Your task to perform on an android device: change the clock display to analog Image 0: 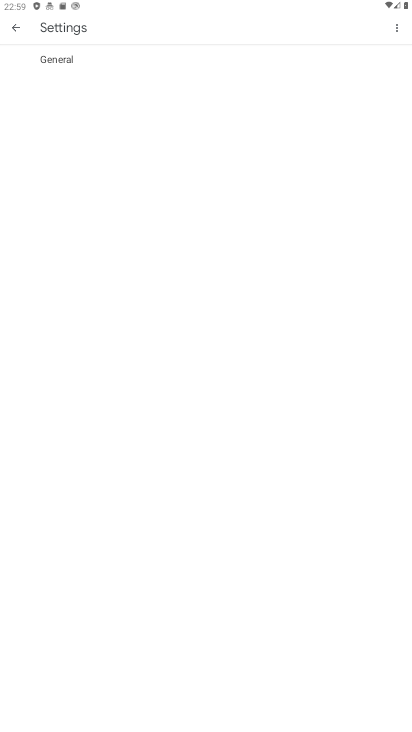
Step 0: click (13, 31)
Your task to perform on an android device: change the clock display to analog Image 1: 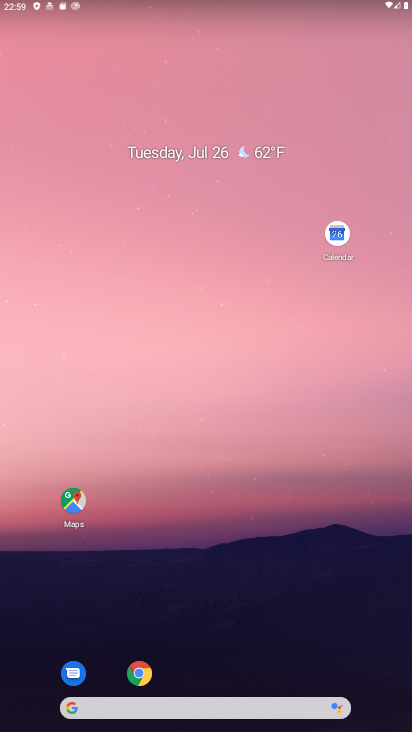
Step 1: drag from (244, 700) to (215, 296)
Your task to perform on an android device: change the clock display to analog Image 2: 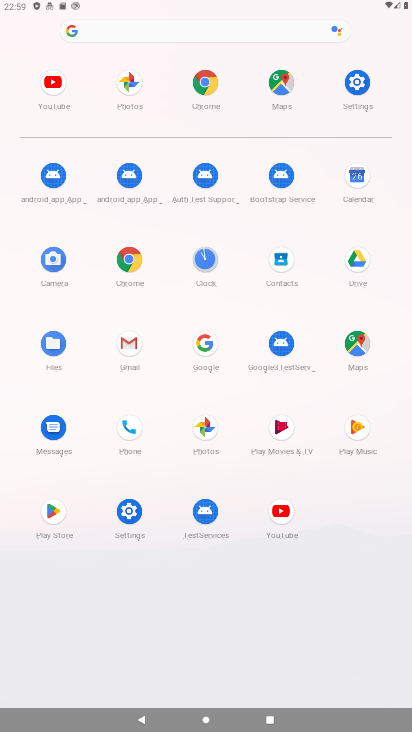
Step 2: drag from (212, 525) to (206, 235)
Your task to perform on an android device: change the clock display to analog Image 3: 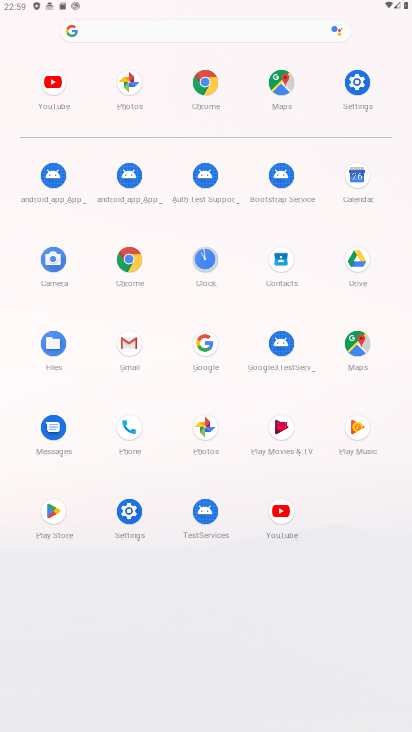
Step 3: click (207, 269)
Your task to perform on an android device: change the clock display to analog Image 4: 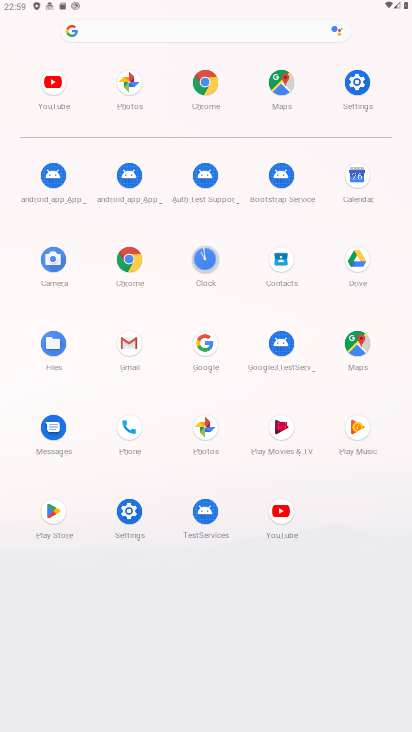
Step 4: click (208, 265)
Your task to perform on an android device: change the clock display to analog Image 5: 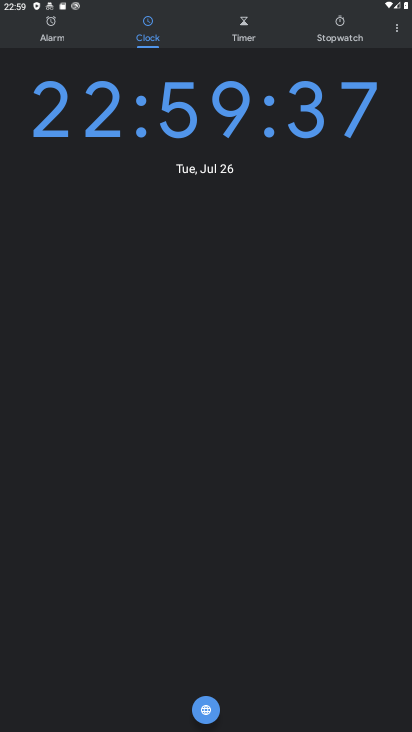
Step 5: click (394, 29)
Your task to perform on an android device: change the clock display to analog Image 6: 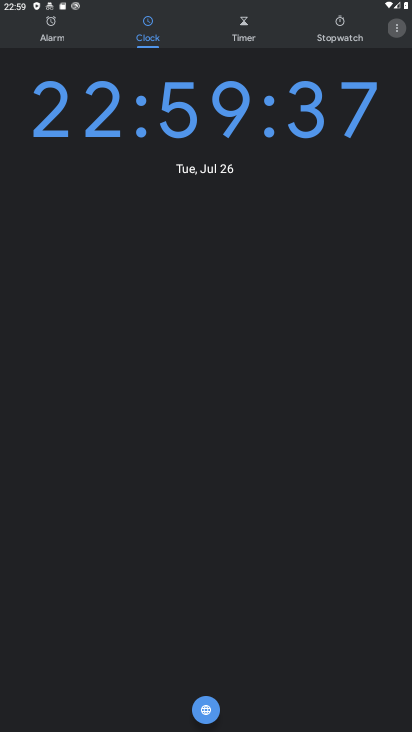
Step 6: click (396, 26)
Your task to perform on an android device: change the clock display to analog Image 7: 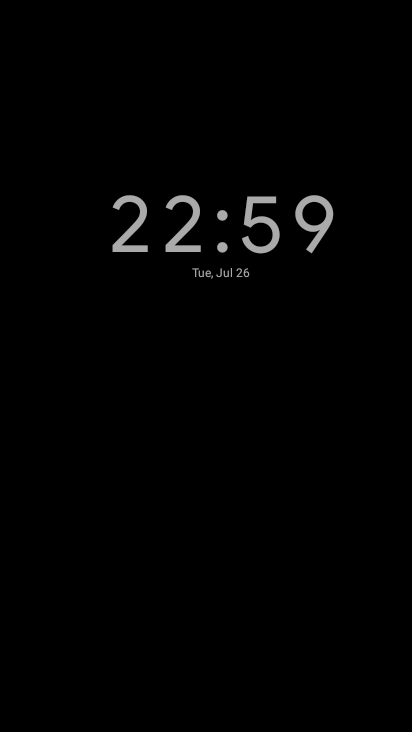
Step 7: press back button
Your task to perform on an android device: change the clock display to analog Image 8: 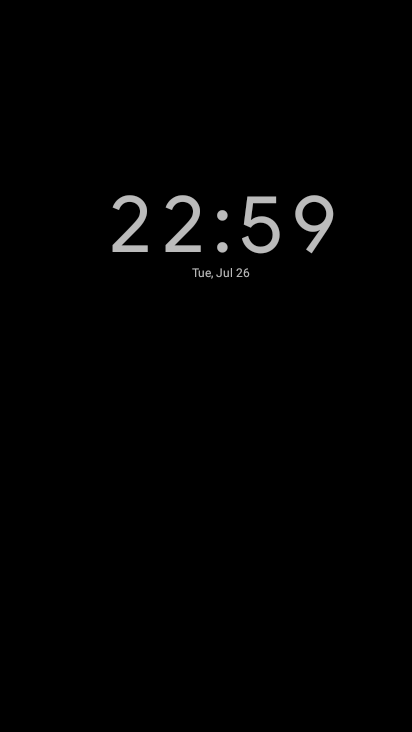
Step 8: press back button
Your task to perform on an android device: change the clock display to analog Image 9: 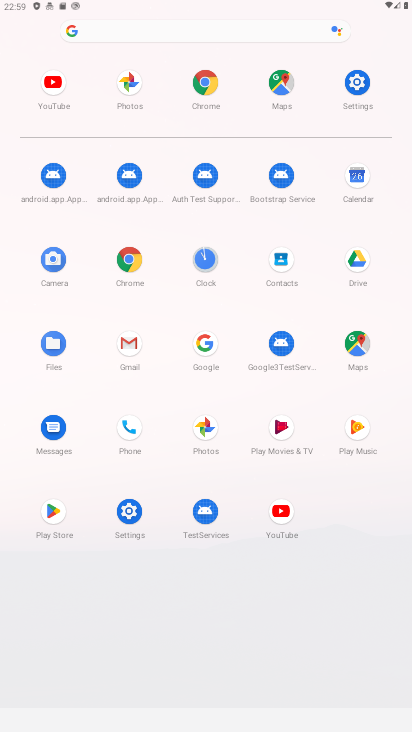
Step 9: click (208, 259)
Your task to perform on an android device: change the clock display to analog Image 10: 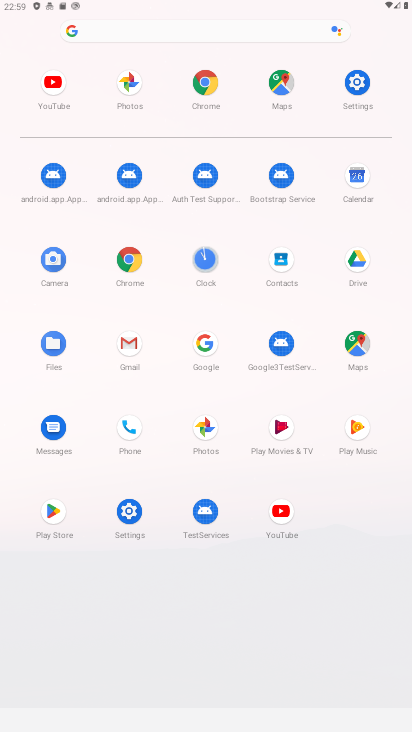
Step 10: click (206, 260)
Your task to perform on an android device: change the clock display to analog Image 11: 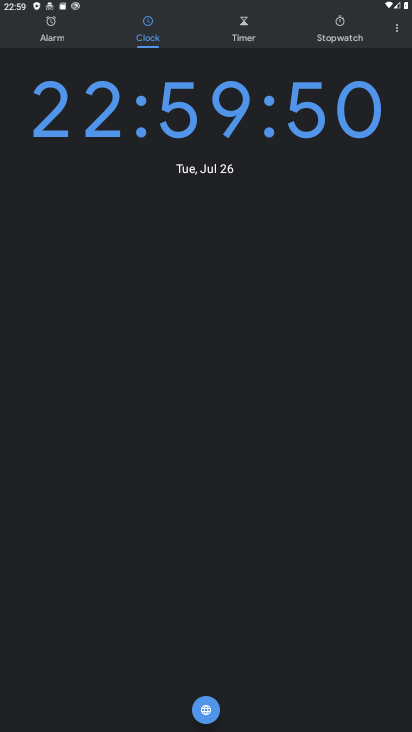
Step 11: drag from (391, 29) to (322, 50)
Your task to perform on an android device: change the clock display to analog Image 12: 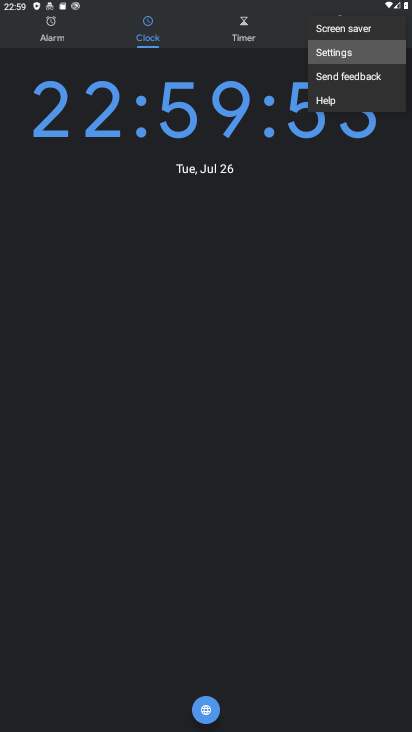
Step 12: click (327, 50)
Your task to perform on an android device: change the clock display to analog Image 13: 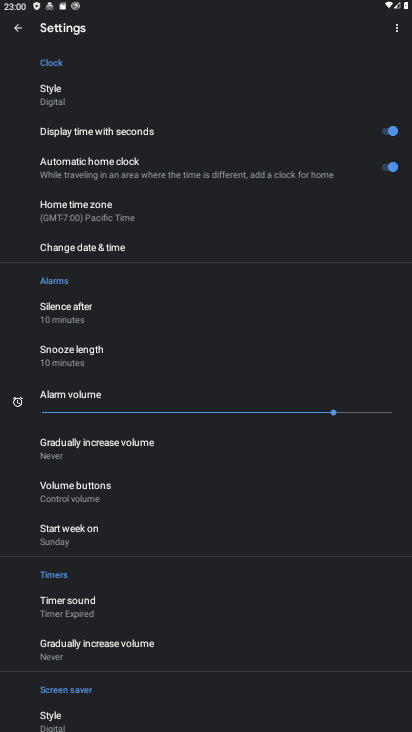
Step 13: click (53, 102)
Your task to perform on an android device: change the clock display to analog Image 14: 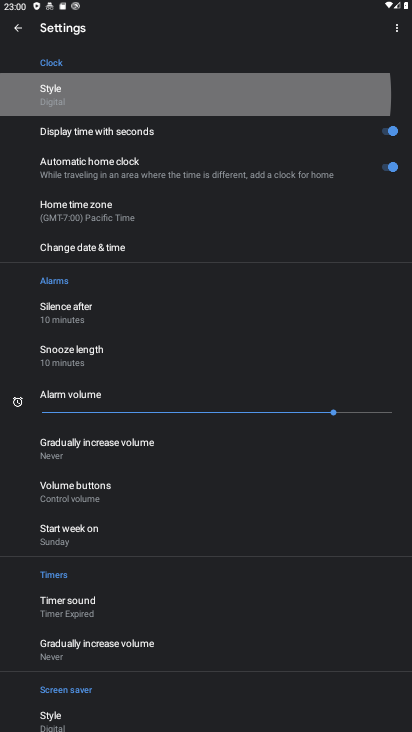
Step 14: click (53, 102)
Your task to perform on an android device: change the clock display to analog Image 15: 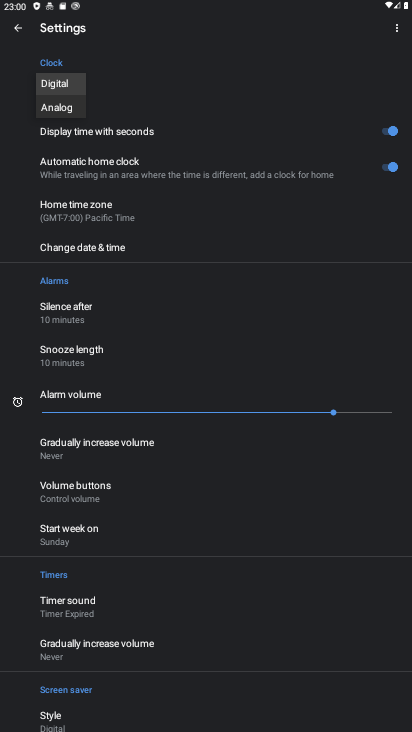
Step 15: click (55, 103)
Your task to perform on an android device: change the clock display to analog Image 16: 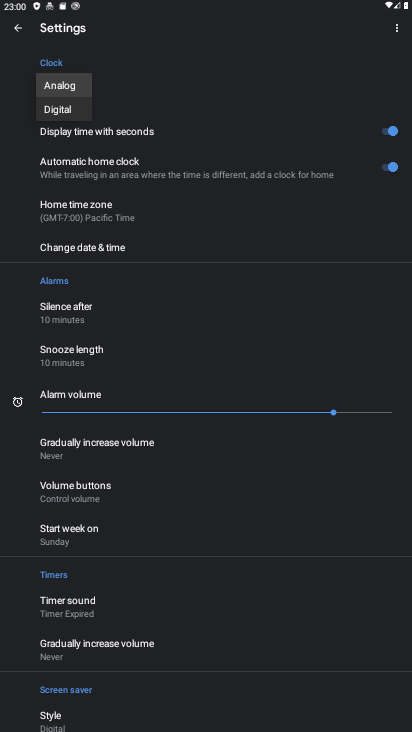
Step 16: click (57, 79)
Your task to perform on an android device: change the clock display to analog Image 17: 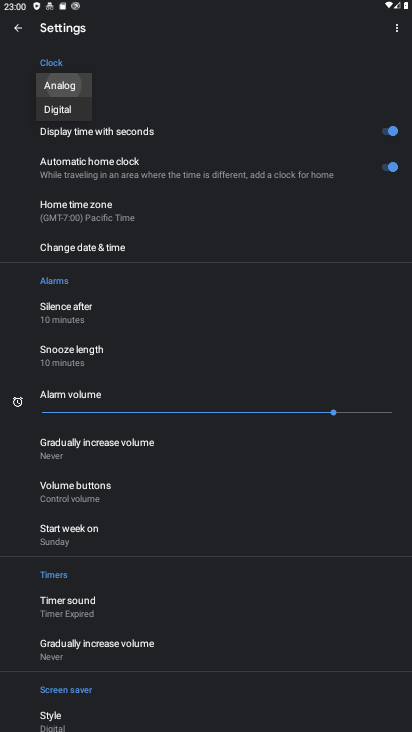
Step 17: click (60, 79)
Your task to perform on an android device: change the clock display to analog Image 18: 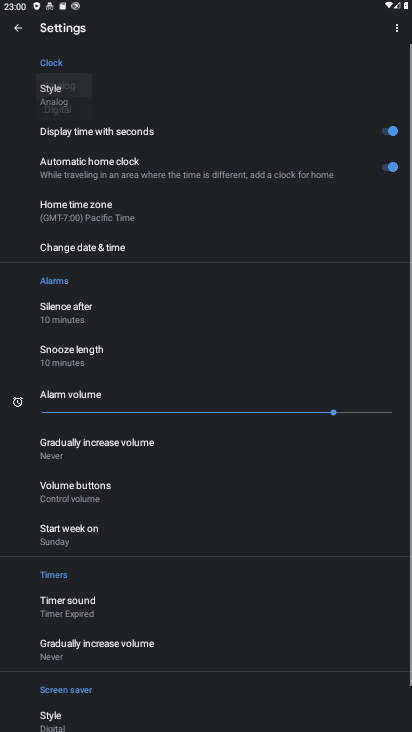
Step 18: click (65, 85)
Your task to perform on an android device: change the clock display to analog Image 19: 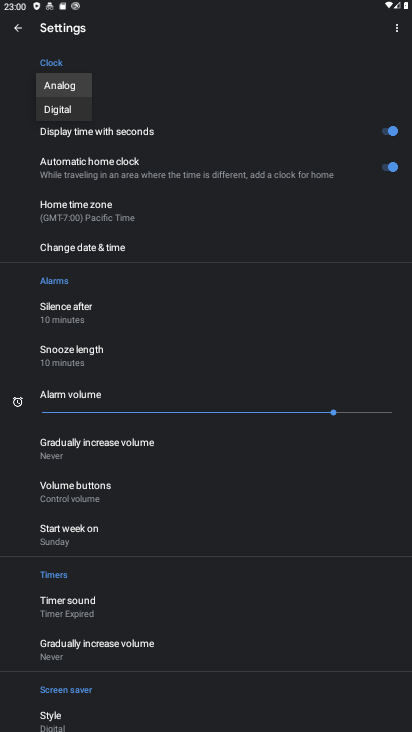
Step 19: task complete